Your task to perform on an android device: delete a single message in the gmail app Image 0: 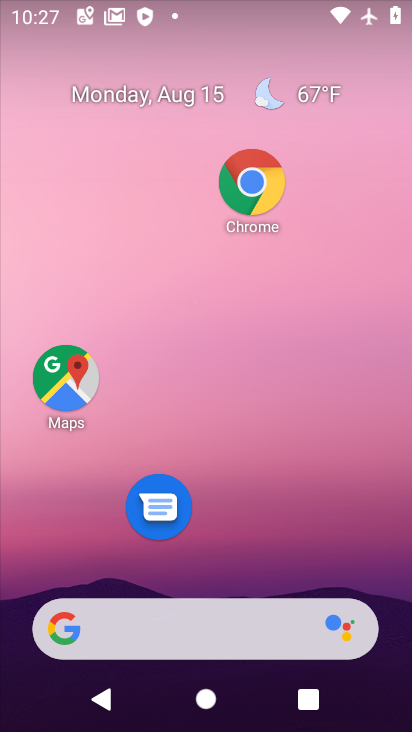
Step 0: drag from (277, 587) to (239, 114)
Your task to perform on an android device: delete a single message in the gmail app Image 1: 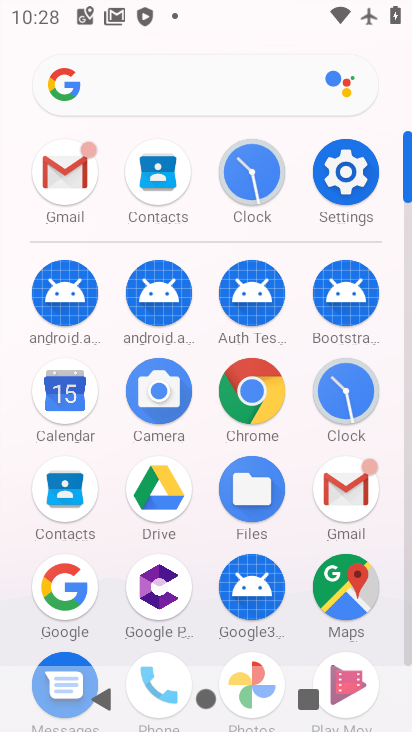
Step 1: click (89, 207)
Your task to perform on an android device: delete a single message in the gmail app Image 2: 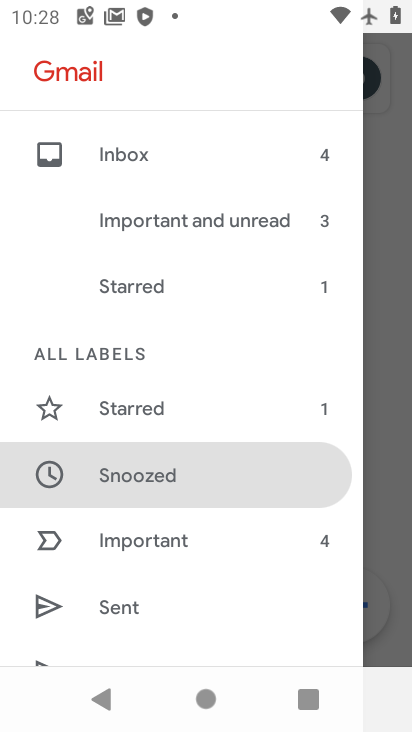
Step 2: task complete